Your task to perform on an android device: Go to location settings Image 0: 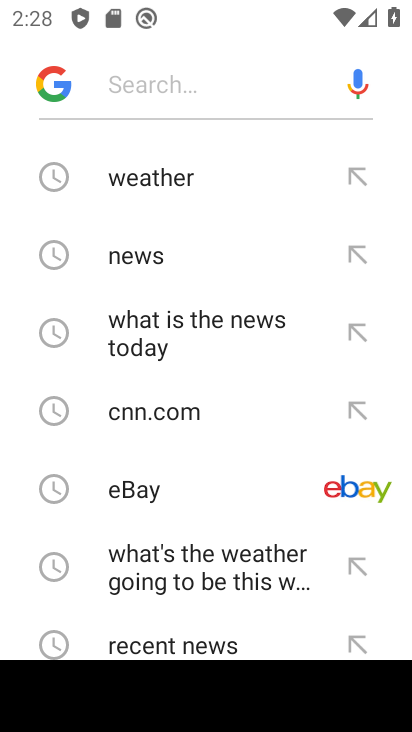
Step 0: press home button
Your task to perform on an android device: Go to location settings Image 1: 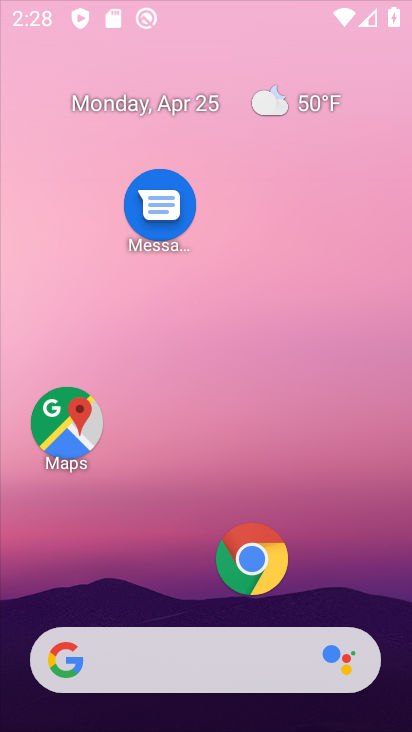
Step 1: press home button
Your task to perform on an android device: Go to location settings Image 2: 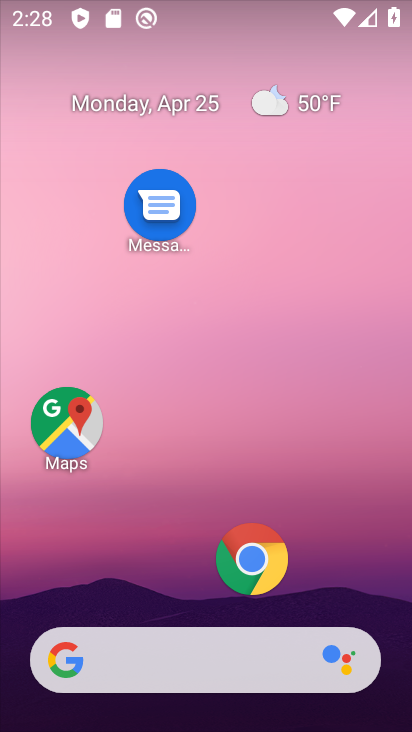
Step 2: drag from (151, 583) to (265, 55)
Your task to perform on an android device: Go to location settings Image 3: 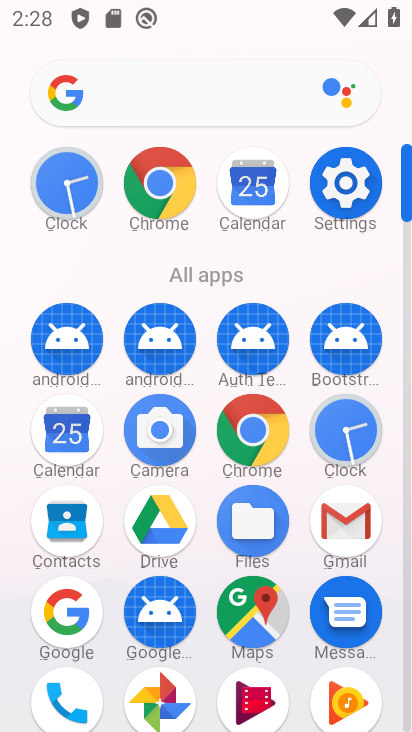
Step 3: click (369, 170)
Your task to perform on an android device: Go to location settings Image 4: 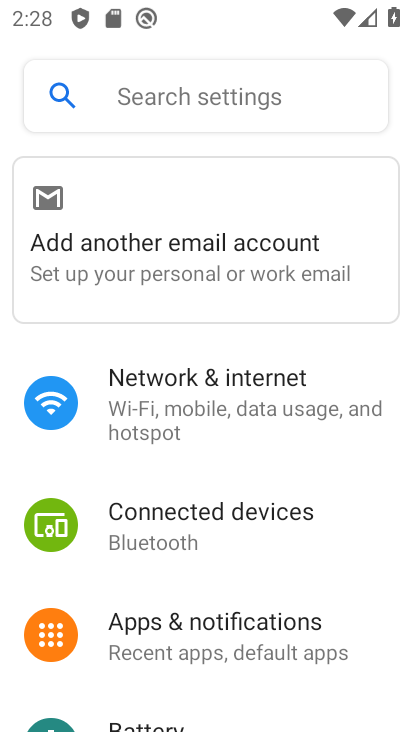
Step 4: drag from (188, 576) to (235, 183)
Your task to perform on an android device: Go to location settings Image 5: 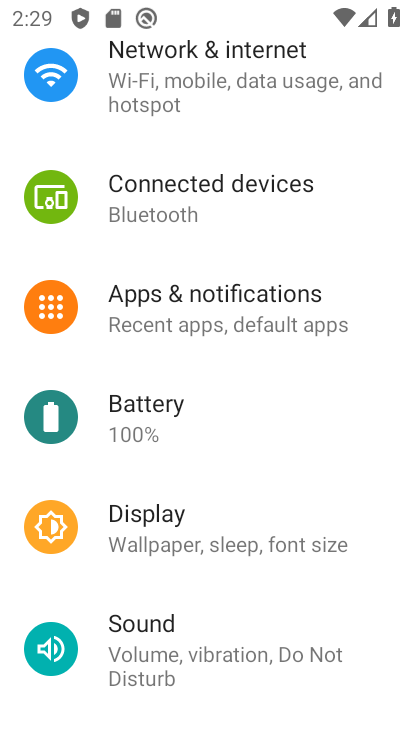
Step 5: drag from (198, 460) to (253, 134)
Your task to perform on an android device: Go to location settings Image 6: 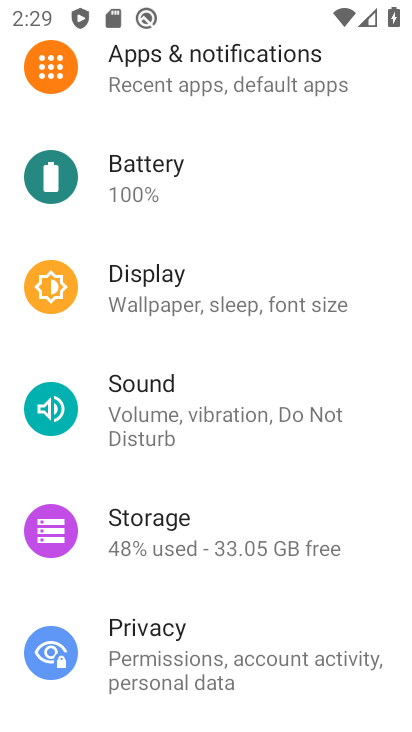
Step 6: click (198, 208)
Your task to perform on an android device: Go to location settings Image 7: 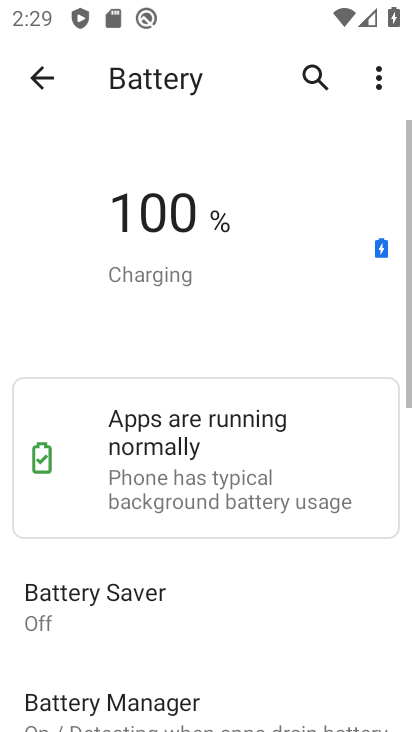
Step 7: click (47, 75)
Your task to perform on an android device: Go to location settings Image 8: 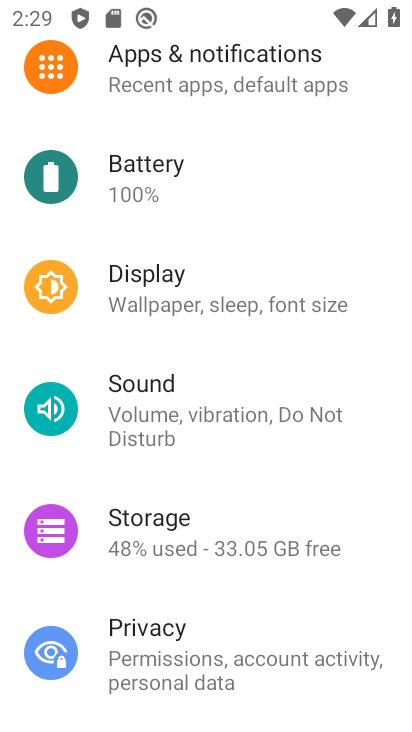
Step 8: drag from (168, 592) to (240, 111)
Your task to perform on an android device: Go to location settings Image 9: 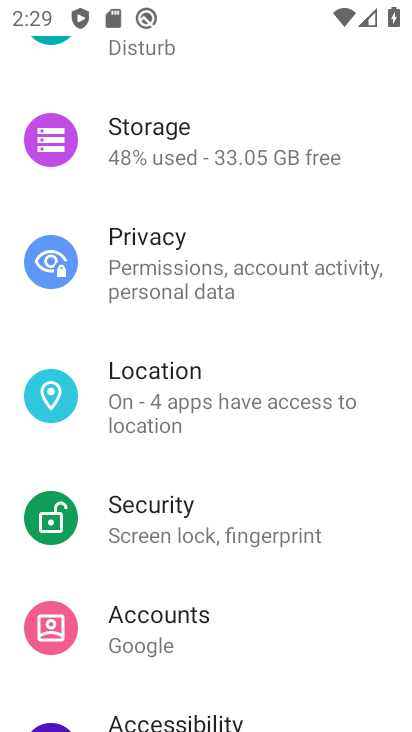
Step 9: click (139, 390)
Your task to perform on an android device: Go to location settings Image 10: 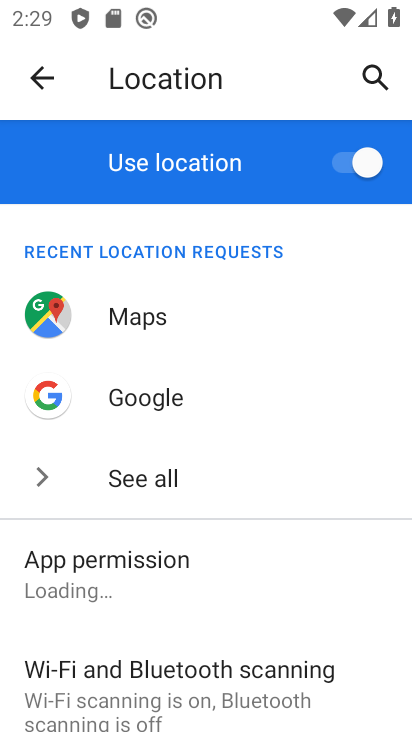
Step 10: task complete